Your task to perform on an android device: Open accessibility settings Image 0: 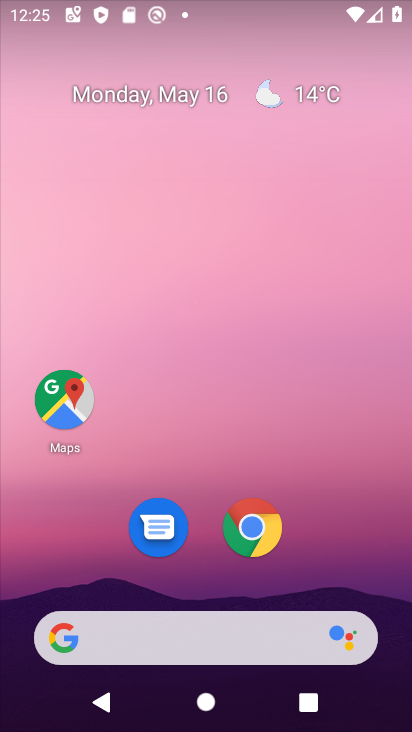
Step 0: drag from (215, 587) to (253, 71)
Your task to perform on an android device: Open accessibility settings Image 1: 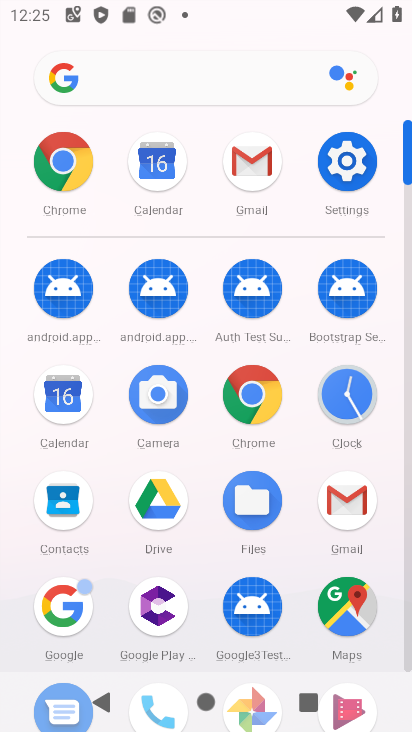
Step 1: click (333, 183)
Your task to perform on an android device: Open accessibility settings Image 2: 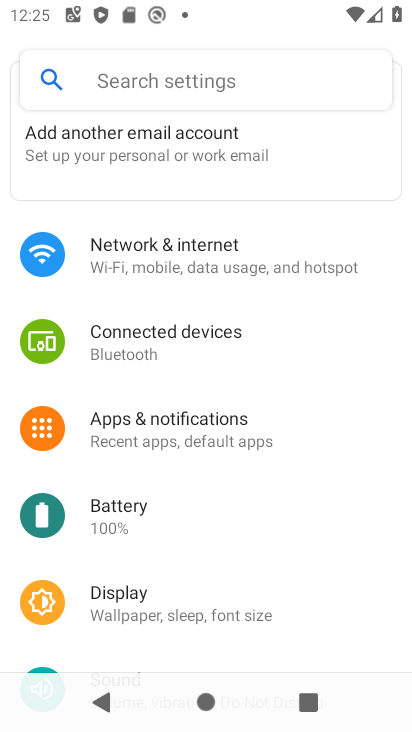
Step 2: drag from (139, 576) to (232, 116)
Your task to perform on an android device: Open accessibility settings Image 3: 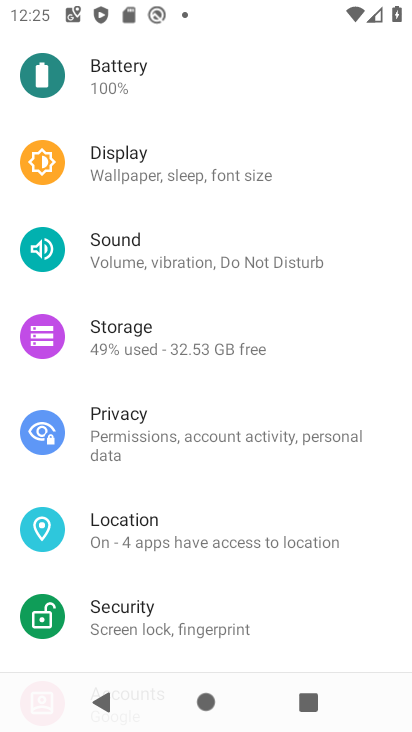
Step 3: drag from (189, 591) to (256, 233)
Your task to perform on an android device: Open accessibility settings Image 4: 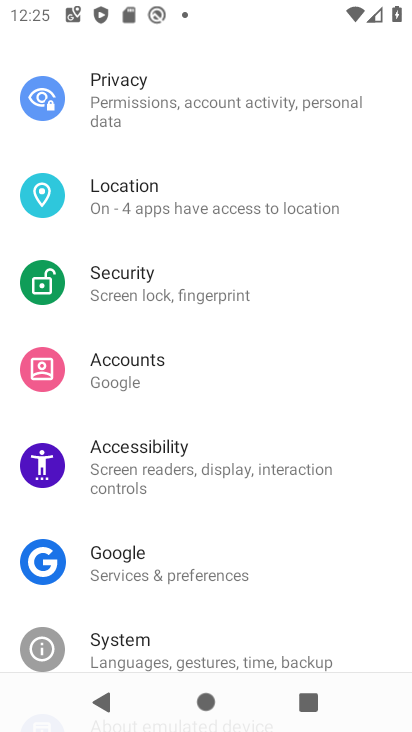
Step 4: click (191, 472)
Your task to perform on an android device: Open accessibility settings Image 5: 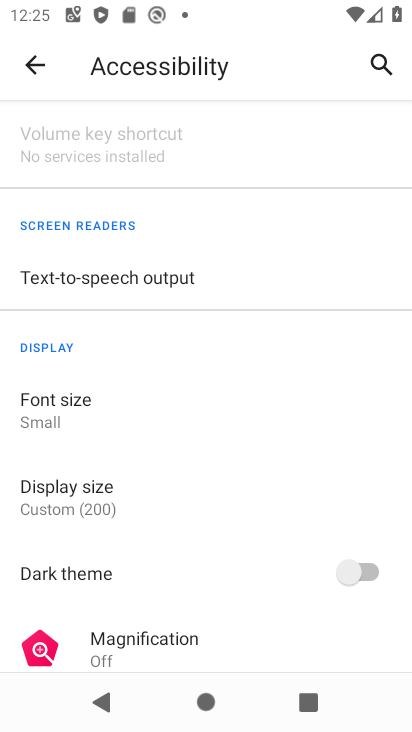
Step 5: task complete